Your task to perform on an android device: Open network settings Image 0: 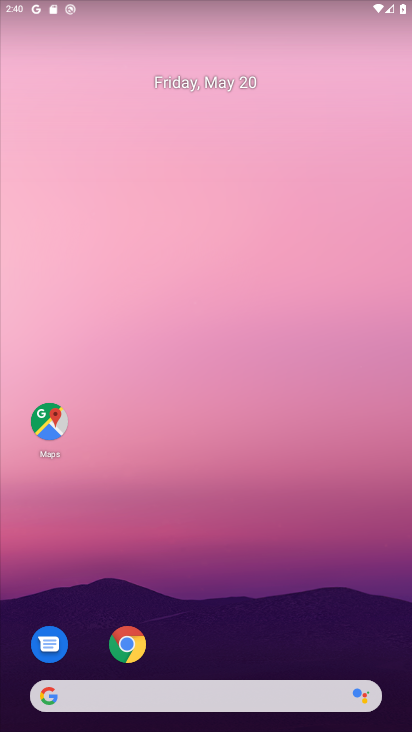
Step 0: drag from (219, 586) to (264, 51)
Your task to perform on an android device: Open network settings Image 1: 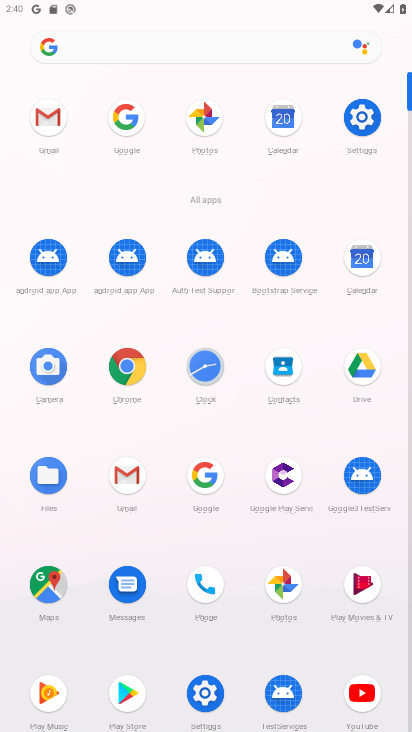
Step 1: click (365, 108)
Your task to perform on an android device: Open network settings Image 2: 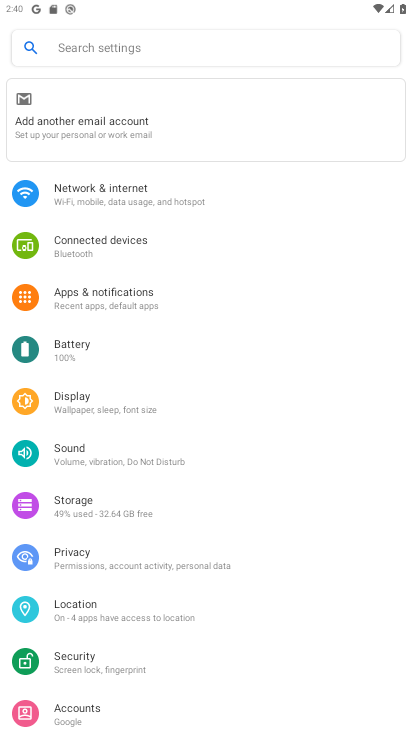
Step 2: click (172, 199)
Your task to perform on an android device: Open network settings Image 3: 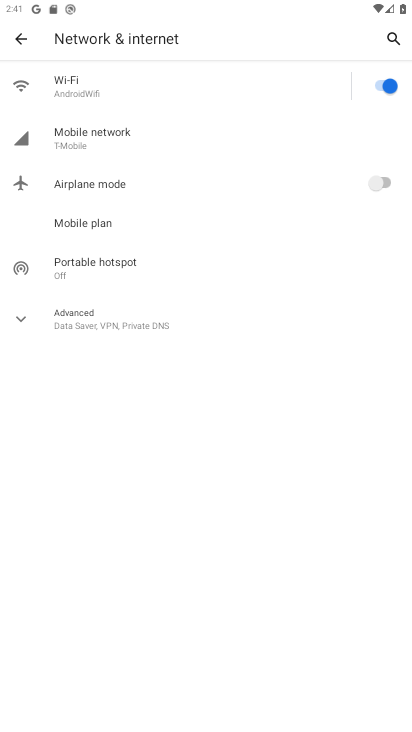
Step 3: task complete